Your task to perform on an android device: find photos in the google photos app Image 0: 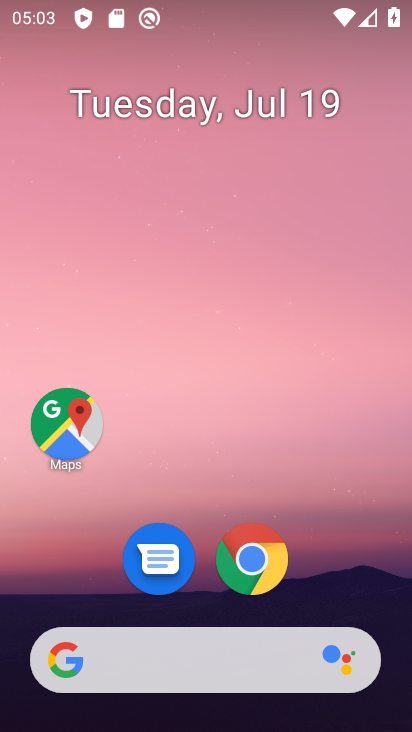
Step 0: drag from (168, 593) to (269, 4)
Your task to perform on an android device: find photos in the google photos app Image 1: 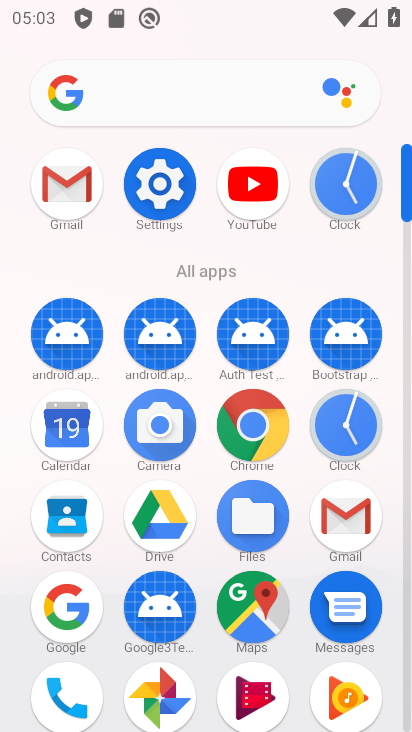
Step 1: click (156, 678)
Your task to perform on an android device: find photos in the google photos app Image 2: 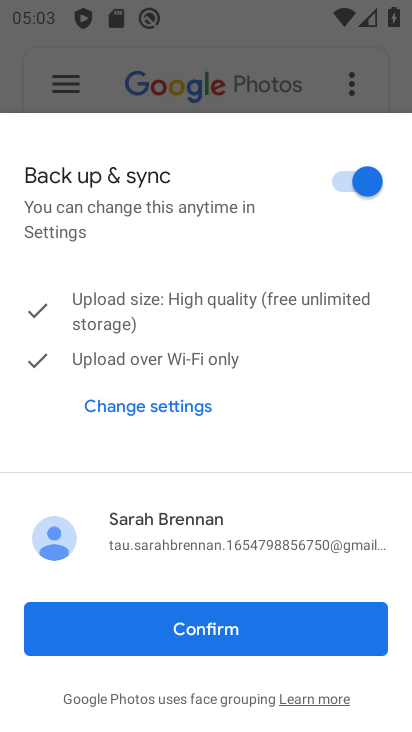
Step 2: click (170, 642)
Your task to perform on an android device: find photos in the google photos app Image 3: 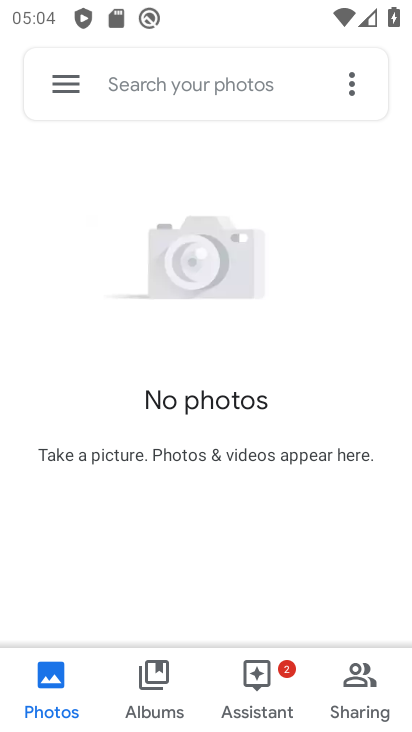
Step 3: click (51, 677)
Your task to perform on an android device: find photos in the google photos app Image 4: 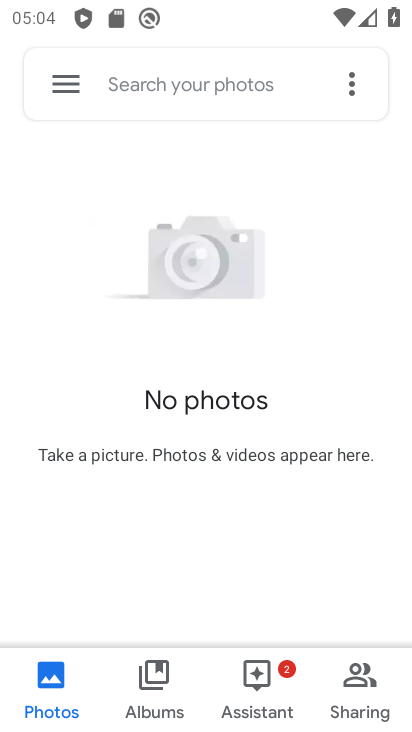
Step 4: task complete